Your task to perform on an android device: turn off improve location accuracy Image 0: 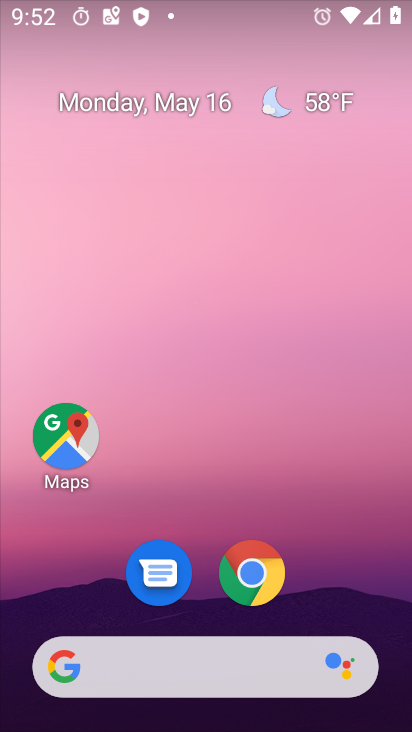
Step 0: drag from (383, 661) to (140, 88)
Your task to perform on an android device: turn off improve location accuracy Image 1: 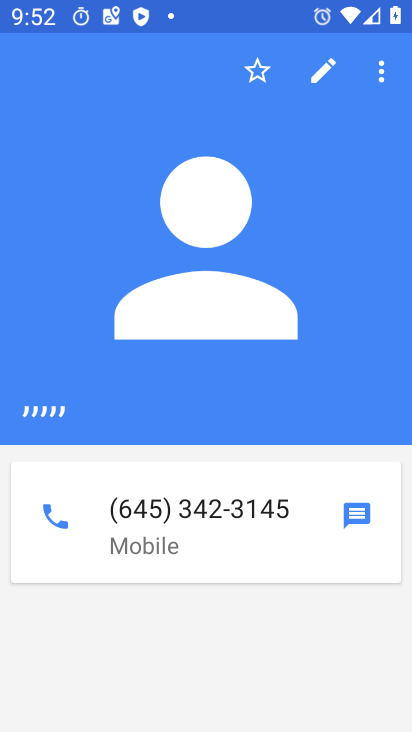
Step 1: press home button
Your task to perform on an android device: turn off improve location accuracy Image 2: 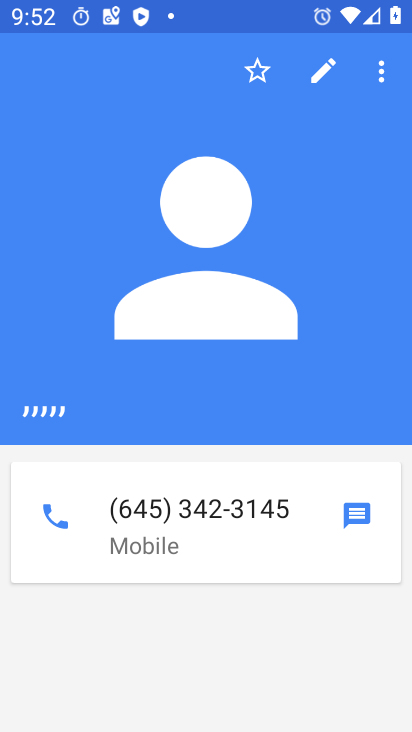
Step 2: press home button
Your task to perform on an android device: turn off improve location accuracy Image 3: 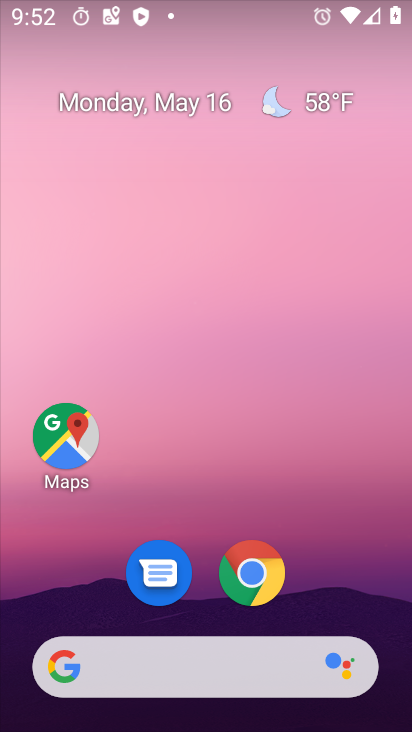
Step 3: drag from (294, 544) to (182, 64)
Your task to perform on an android device: turn off improve location accuracy Image 4: 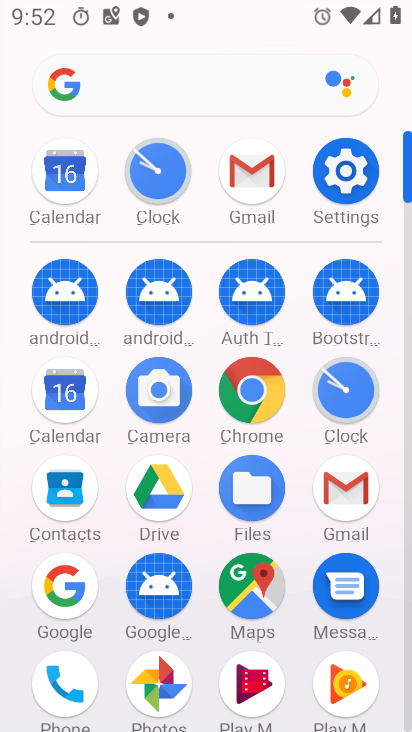
Step 4: click (355, 175)
Your task to perform on an android device: turn off improve location accuracy Image 5: 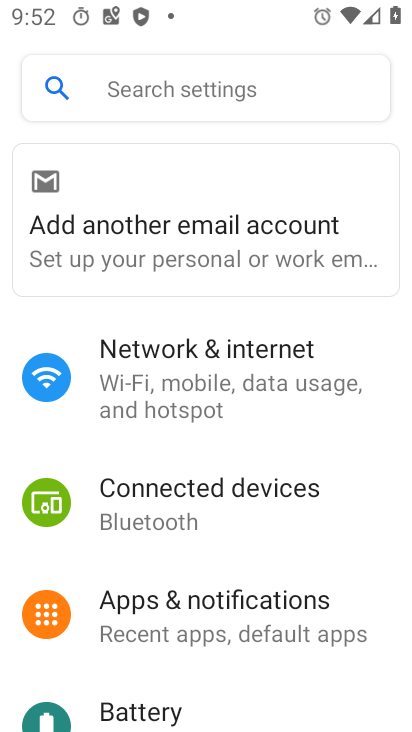
Step 5: drag from (174, 542) to (232, 178)
Your task to perform on an android device: turn off improve location accuracy Image 6: 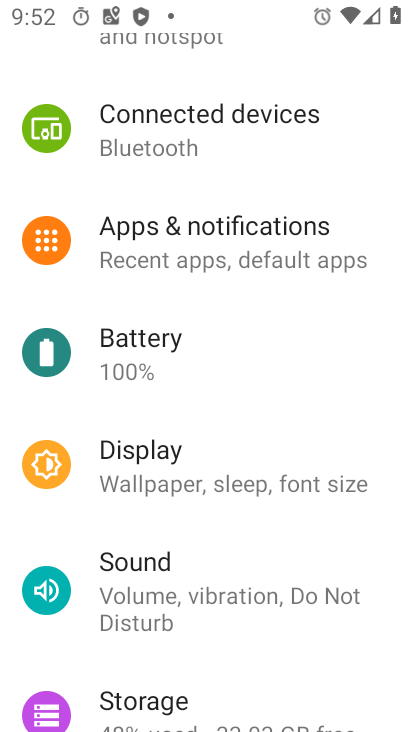
Step 6: drag from (183, 635) to (131, 160)
Your task to perform on an android device: turn off improve location accuracy Image 7: 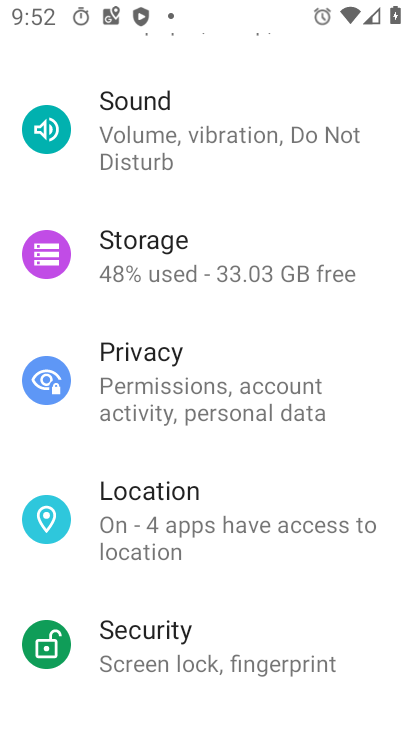
Step 7: click (157, 524)
Your task to perform on an android device: turn off improve location accuracy Image 8: 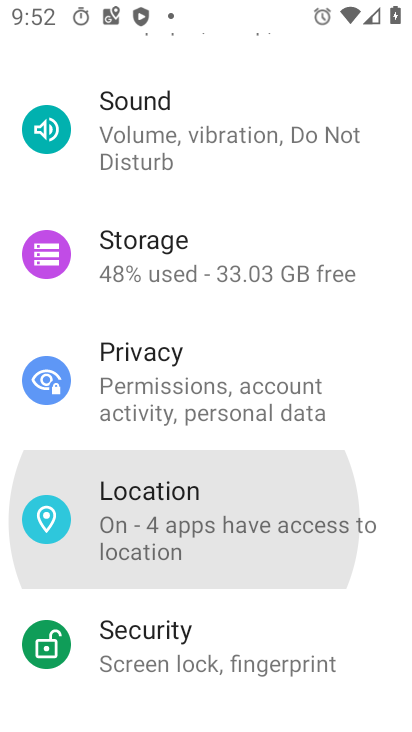
Step 8: click (157, 524)
Your task to perform on an android device: turn off improve location accuracy Image 9: 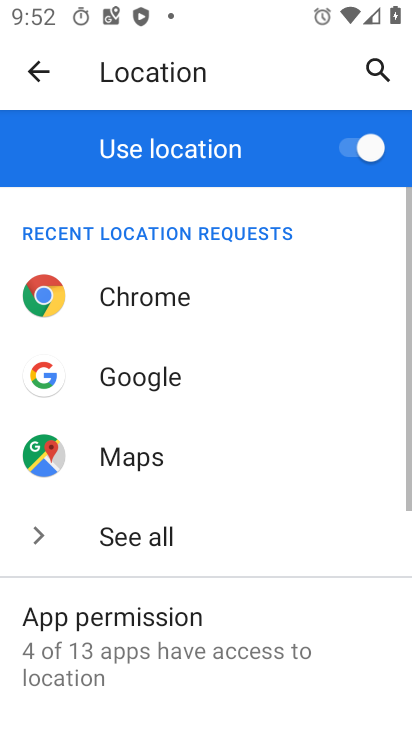
Step 9: drag from (204, 562) to (135, 58)
Your task to perform on an android device: turn off improve location accuracy Image 10: 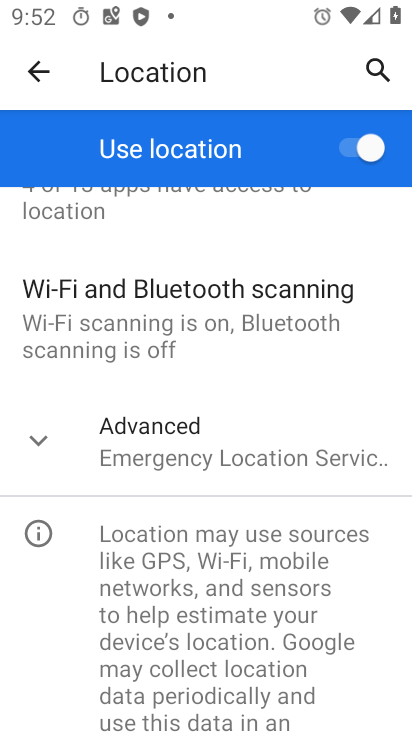
Step 10: click (156, 422)
Your task to perform on an android device: turn off improve location accuracy Image 11: 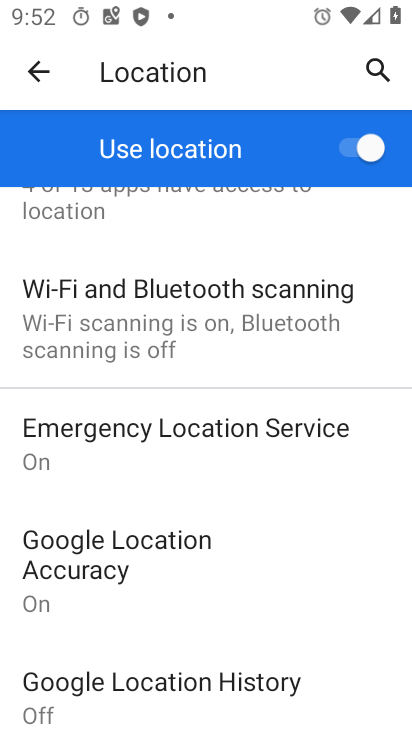
Step 11: click (97, 552)
Your task to perform on an android device: turn off improve location accuracy Image 12: 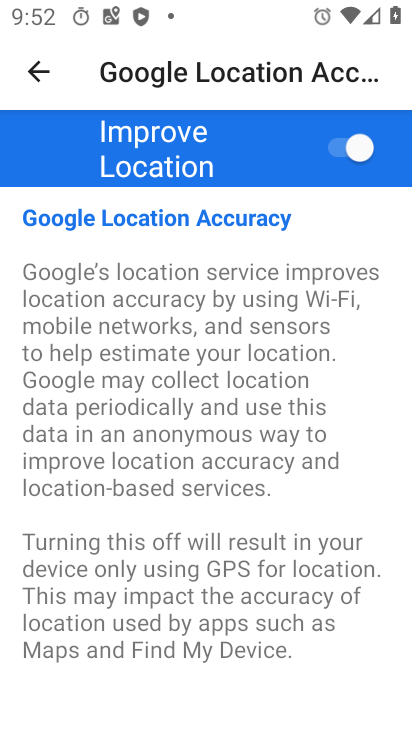
Step 12: click (364, 149)
Your task to perform on an android device: turn off improve location accuracy Image 13: 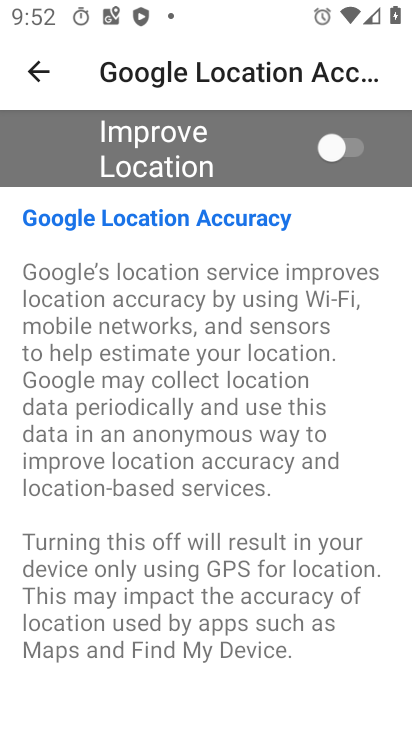
Step 13: task complete